Your task to perform on an android device: change notification settings in the gmail app Image 0: 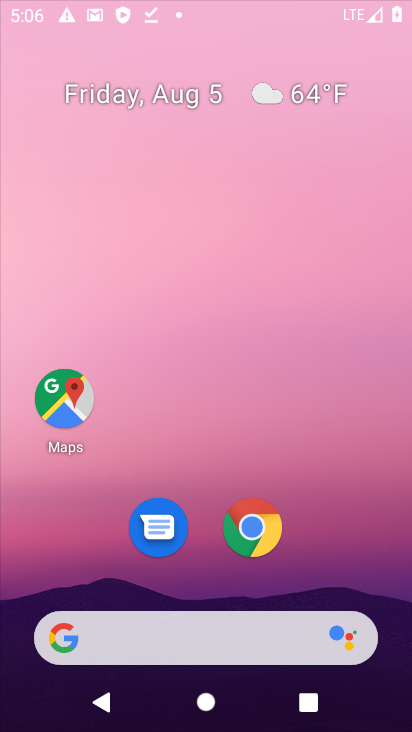
Step 0: click (235, 29)
Your task to perform on an android device: change notification settings in the gmail app Image 1: 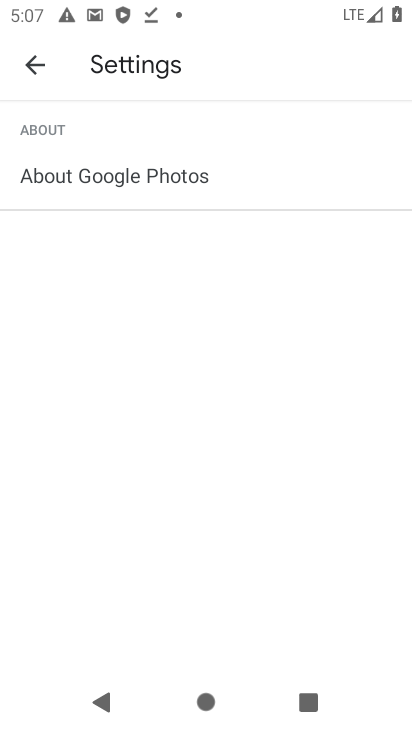
Step 1: drag from (190, 613) to (259, 343)
Your task to perform on an android device: change notification settings in the gmail app Image 2: 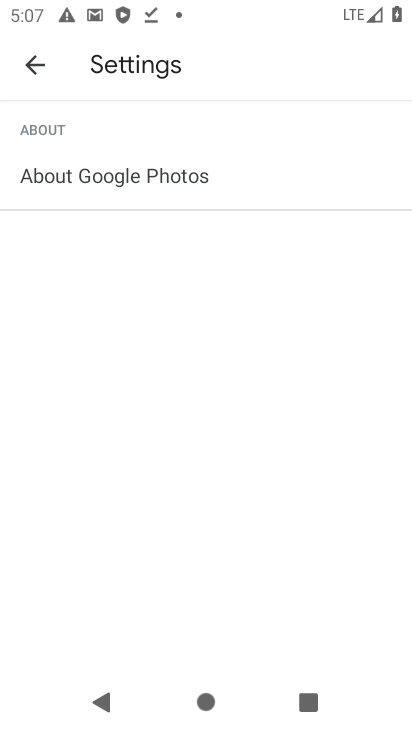
Step 2: press back button
Your task to perform on an android device: change notification settings in the gmail app Image 3: 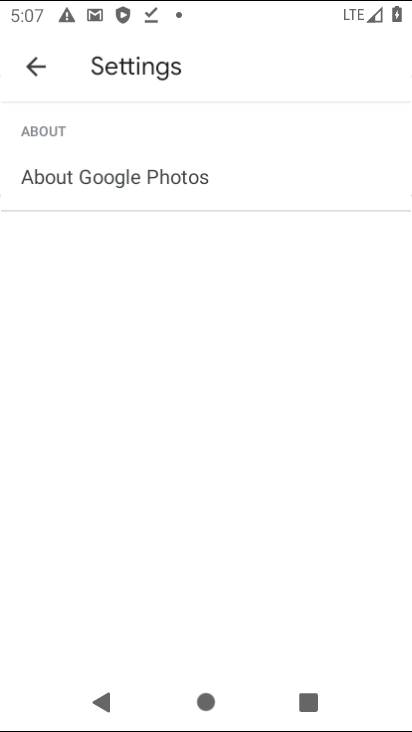
Step 3: press home button
Your task to perform on an android device: change notification settings in the gmail app Image 4: 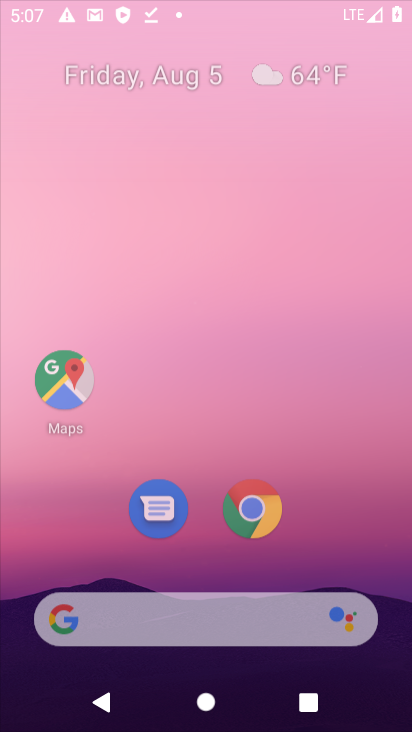
Step 4: drag from (229, 593) to (212, 107)
Your task to perform on an android device: change notification settings in the gmail app Image 5: 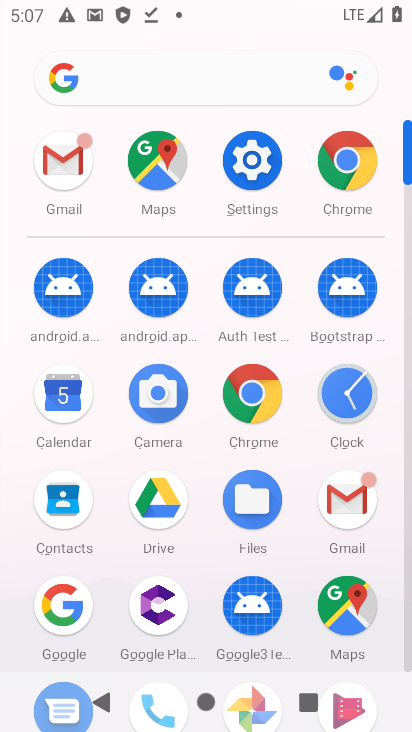
Step 5: click (334, 473)
Your task to perform on an android device: change notification settings in the gmail app Image 6: 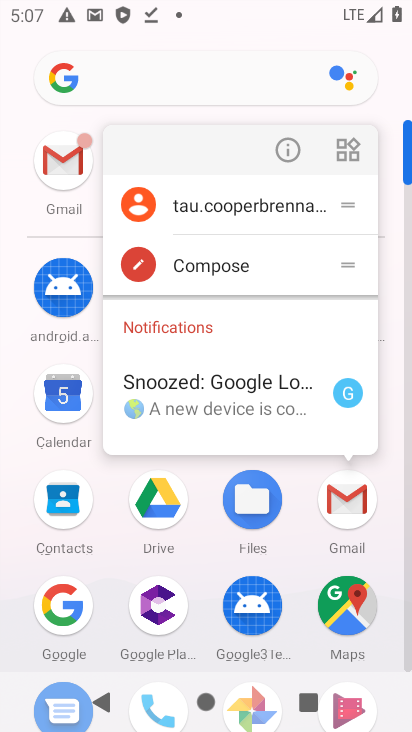
Step 6: click (300, 153)
Your task to perform on an android device: change notification settings in the gmail app Image 7: 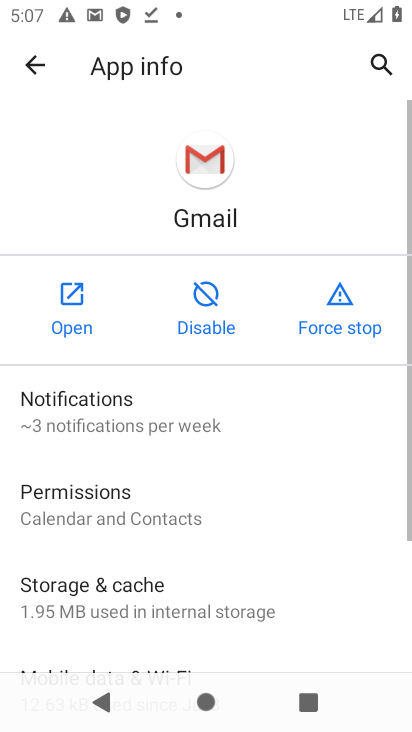
Step 7: click (74, 299)
Your task to perform on an android device: change notification settings in the gmail app Image 8: 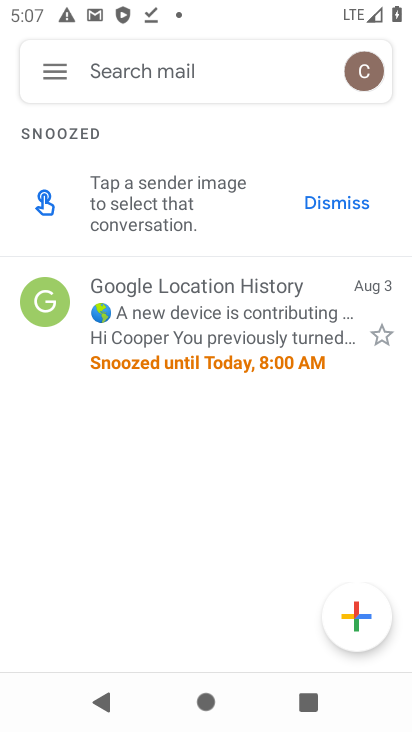
Step 8: drag from (137, 547) to (188, 185)
Your task to perform on an android device: change notification settings in the gmail app Image 9: 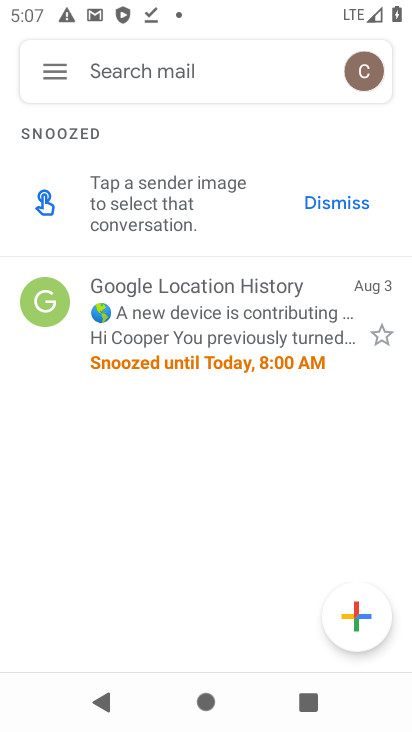
Step 9: click (48, 68)
Your task to perform on an android device: change notification settings in the gmail app Image 10: 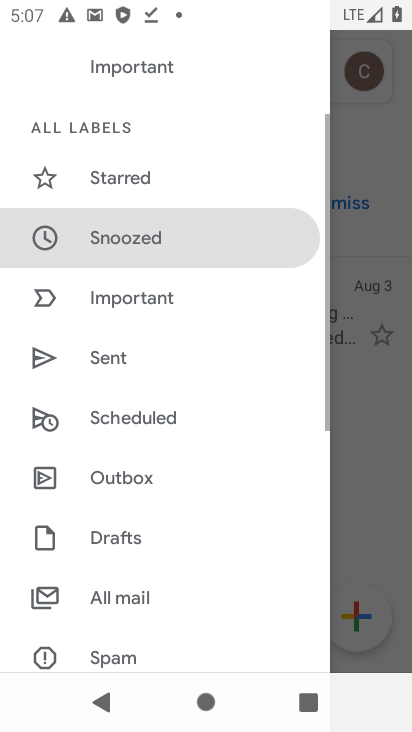
Step 10: drag from (170, 532) to (252, 22)
Your task to perform on an android device: change notification settings in the gmail app Image 11: 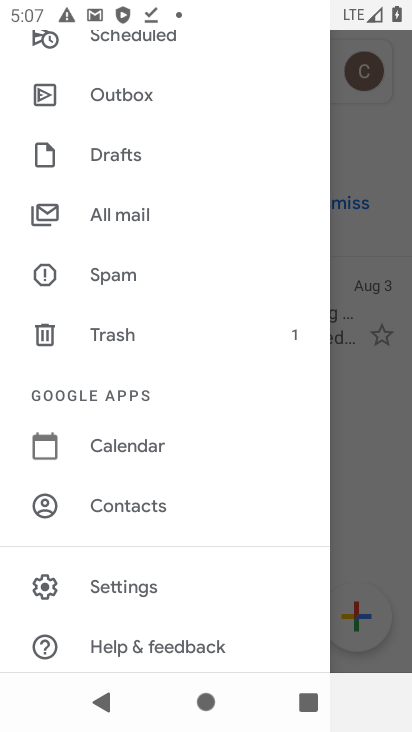
Step 11: click (106, 566)
Your task to perform on an android device: change notification settings in the gmail app Image 12: 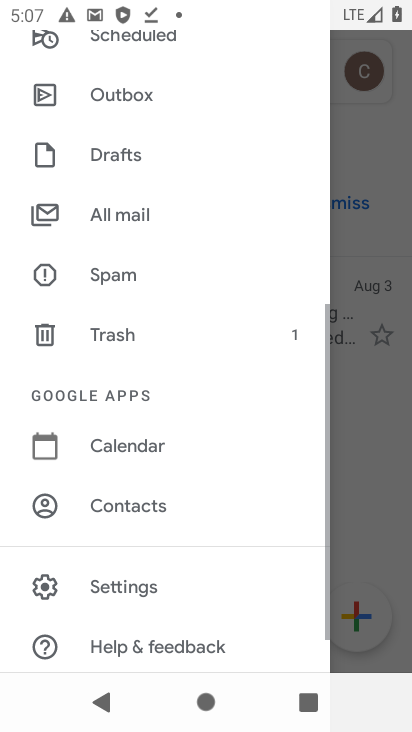
Step 12: click (105, 567)
Your task to perform on an android device: change notification settings in the gmail app Image 13: 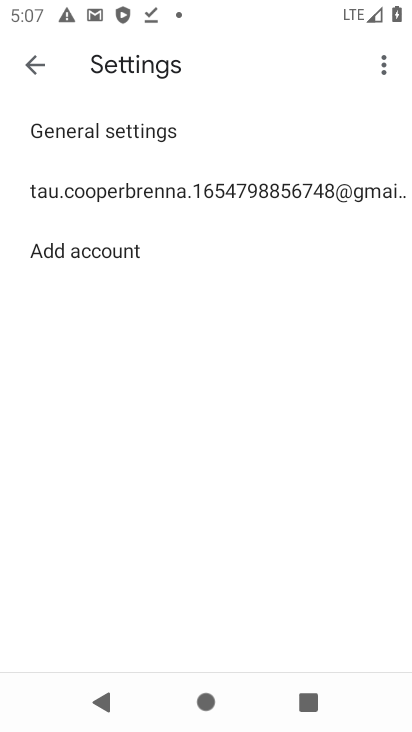
Step 13: click (180, 211)
Your task to perform on an android device: change notification settings in the gmail app Image 14: 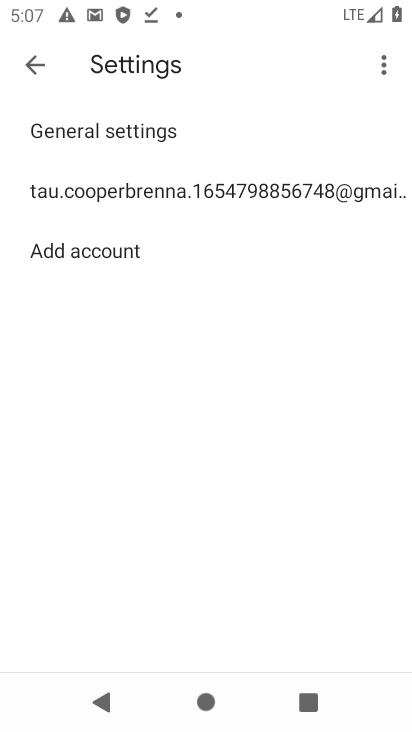
Step 14: click (180, 211)
Your task to perform on an android device: change notification settings in the gmail app Image 15: 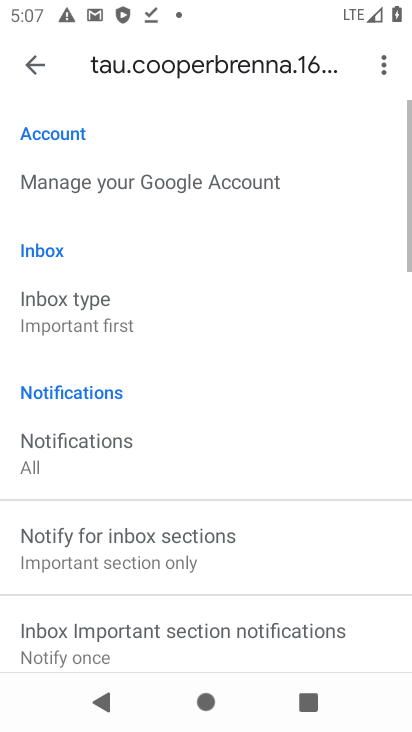
Step 15: drag from (142, 527) to (178, 171)
Your task to perform on an android device: change notification settings in the gmail app Image 16: 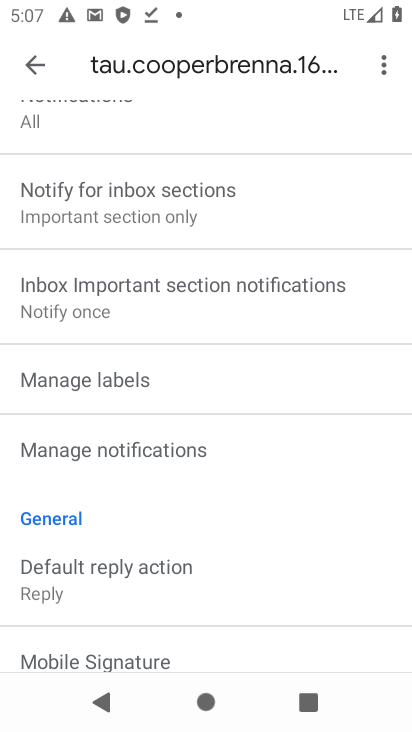
Step 16: click (168, 457)
Your task to perform on an android device: change notification settings in the gmail app Image 17: 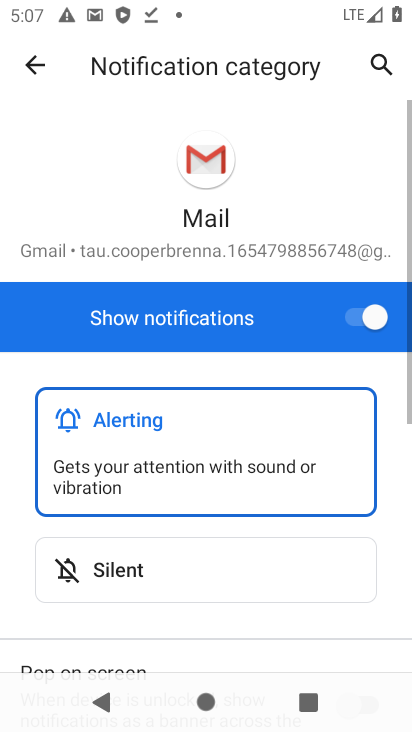
Step 17: drag from (185, 423) to (273, 175)
Your task to perform on an android device: change notification settings in the gmail app Image 18: 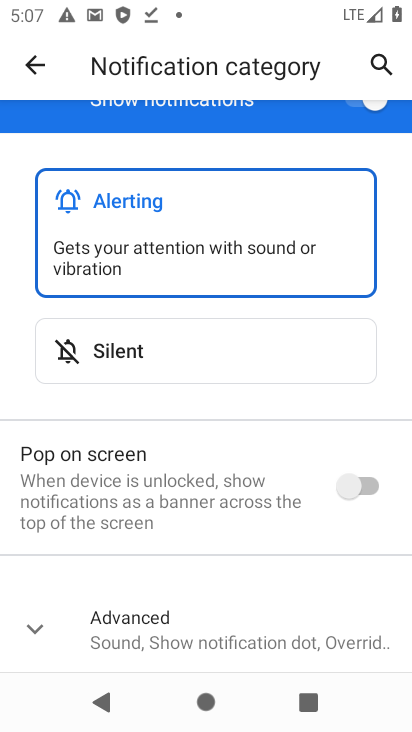
Step 18: click (360, 110)
Your task to perform on an android device: change notification settings in the gmail app Image 19: 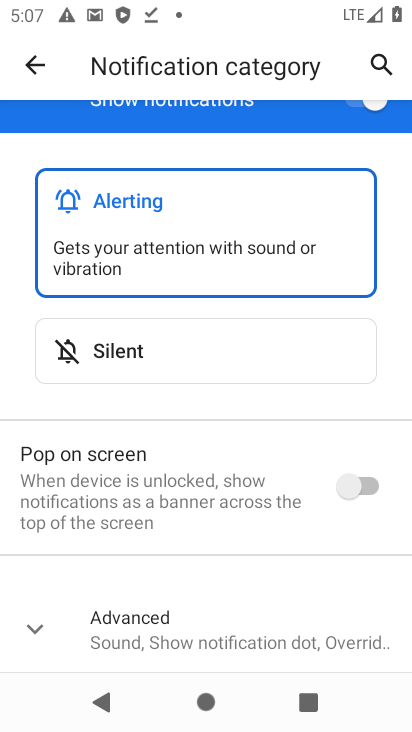
Step 19: click (360, 110)
Your task to perform on an android device: change notification settings in the gmail app Image 20: 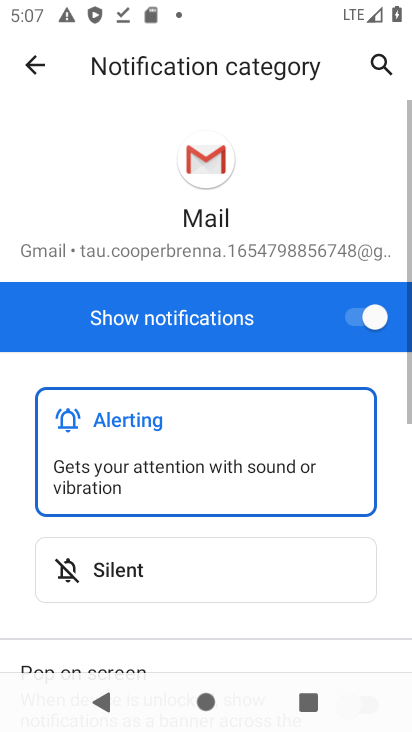
Step 20: click (363, 309)
Your task to perform on an android device: change notification settings in the gmail app Image 21: 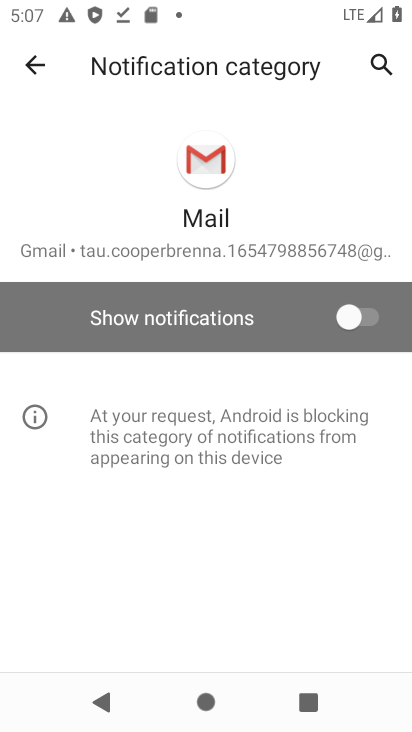
Step 21: task complete